Your task to perform on an android device: Is it going to rain today? Image 0: 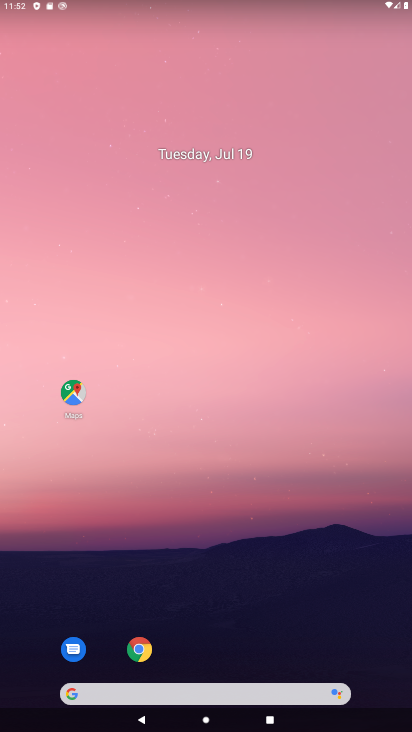
Step 0: click (151, 691)
Your task to perform on an android device: Is it going to rain today? Image 1: 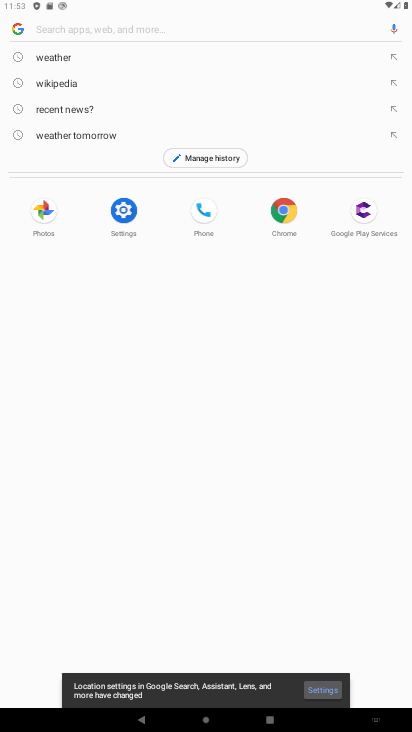
Step 1: click (105, 53)
Your task to perform on an android device: Is it going to rain today? Image 2: 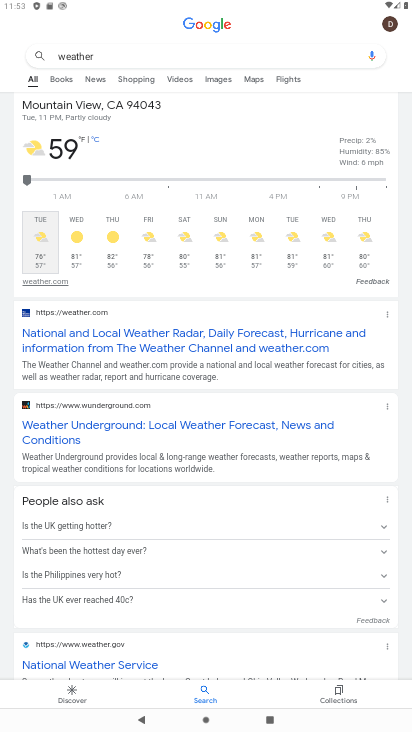
Step 2: task complete